Your task to perform on an android device: check android version Image 0: 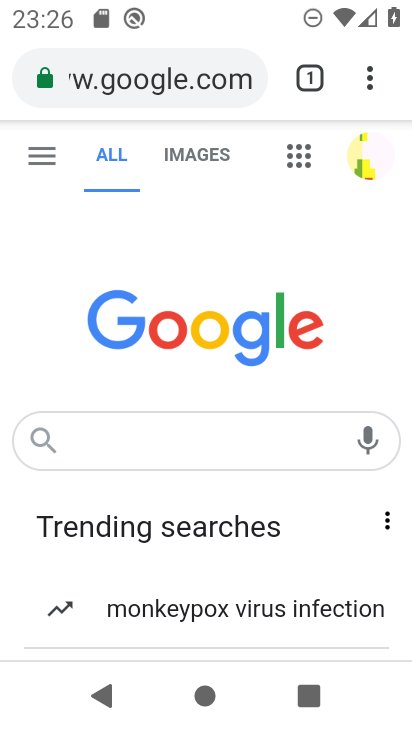
Step 0: press home button
Your task to perform on an android device: check android version Image 1: 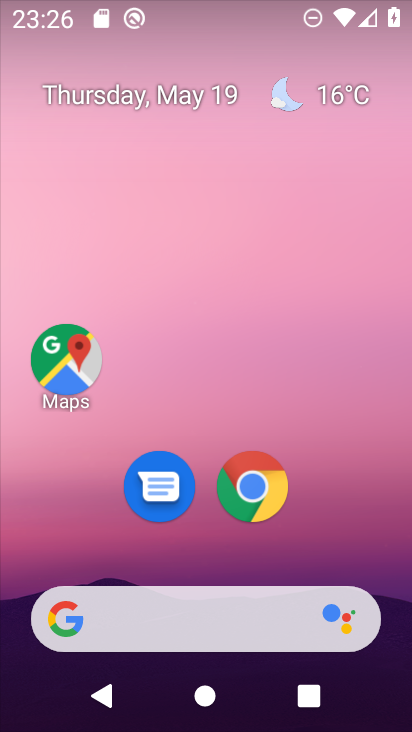
Step 1: drag from (361, 533) to (301, 73)
Your task to perform on an android device: check android version Image 2: 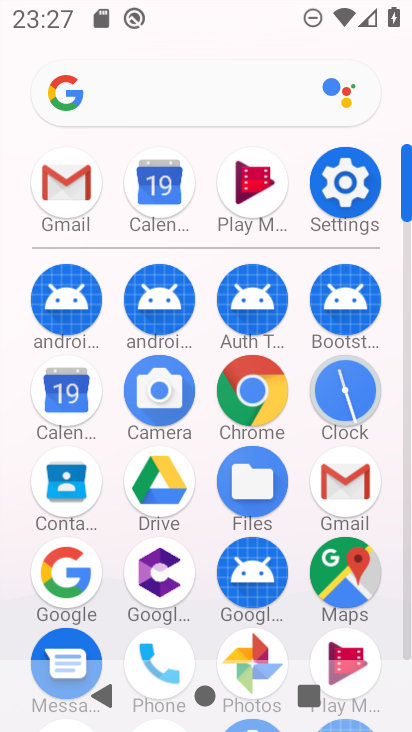
Step 2: click (324, 201)
Your task to perform on an android device: check android version Image 3: 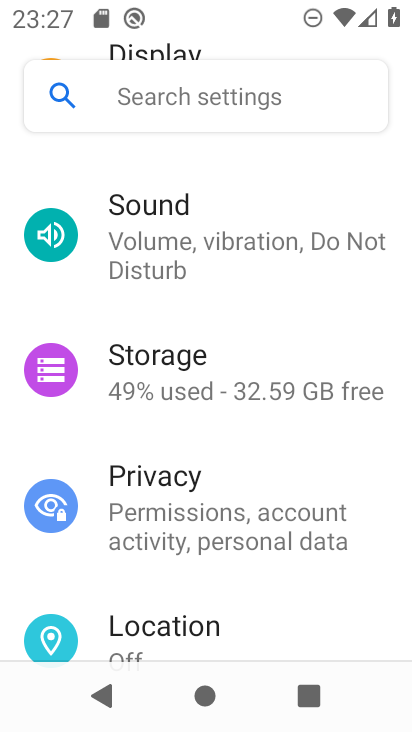
Step 3: drag from (282, 488) to (213, 5)
Your task to perform on an android device: check android version Image 4: 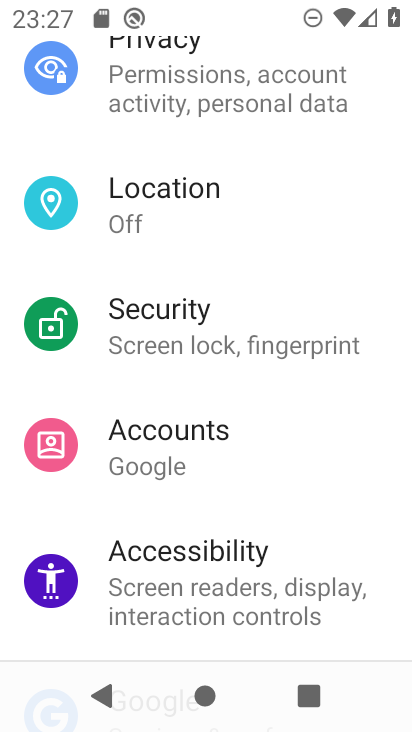
Step 4: drag from (198, 443) to (168, 213)
Your task to perform on an android device: check android version Image 5: 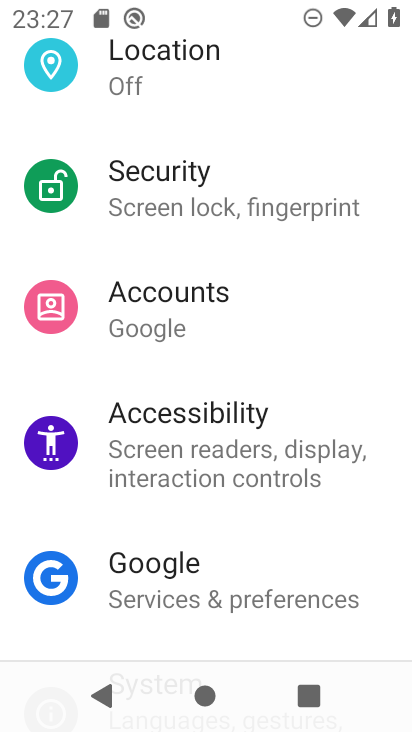
Step 5: drag from (216, 529) to (131, 306)
Your task to perform on an android device: check android version Image 6: 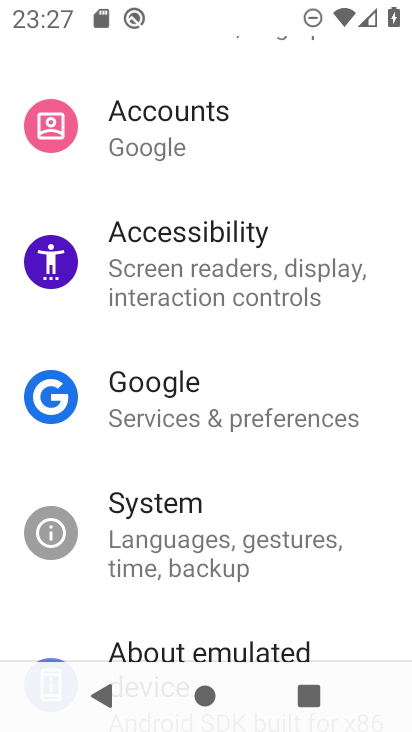
Step 6: click (306, 654)
Your task to perform on an android device: check android version Image 7: 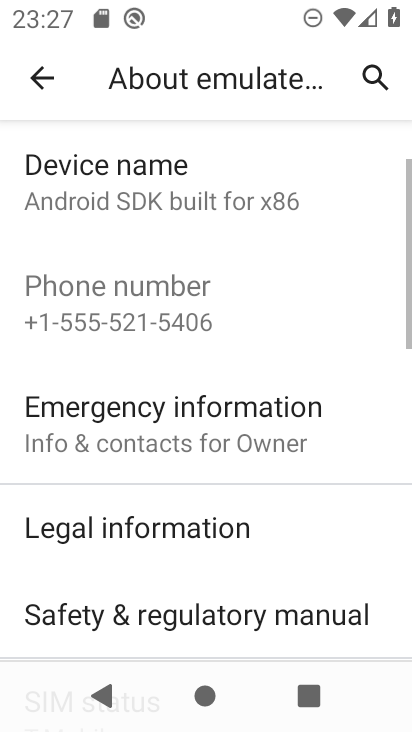
Step 7: drag from (289, 599) to (225, 320)
Your task to perform on an android device: check android version Image 8: 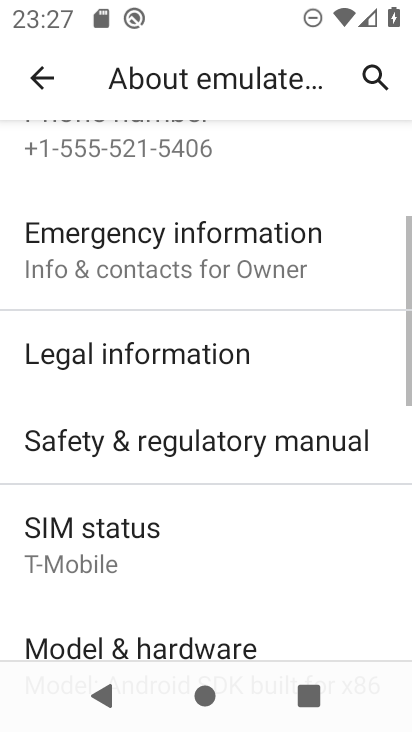
Step 8: drag from (279, 558) to (256, 438)
Your task to perform on an android device: check android version Image 9: 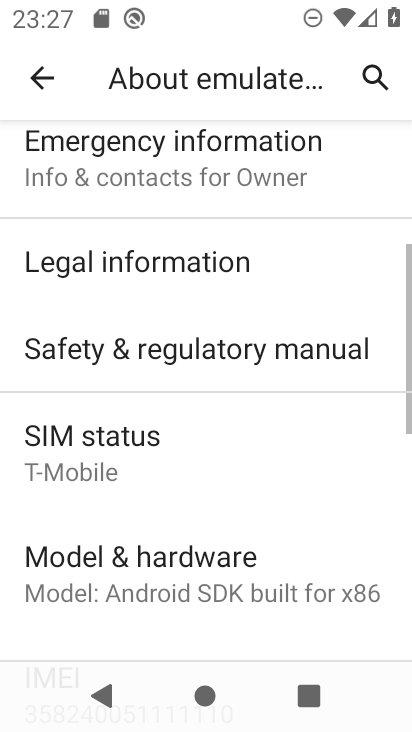
Step 9: drag from (256, 560) to (226, 267)
Your task to perform on an android device: check android version Image 10: 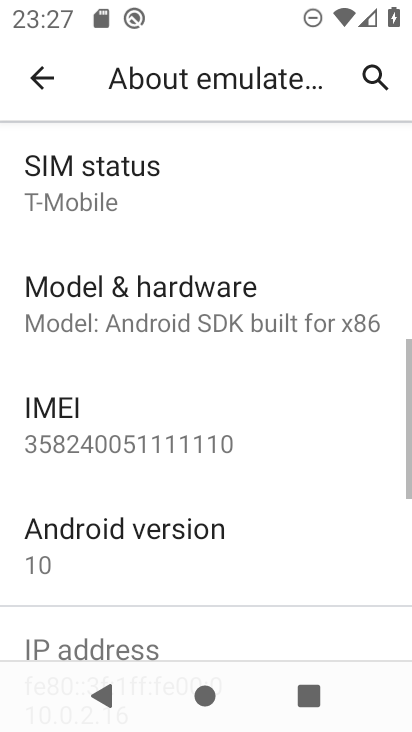
Step 10: click (223, 522)
Your task to perform on an android device: check android version Image 11: 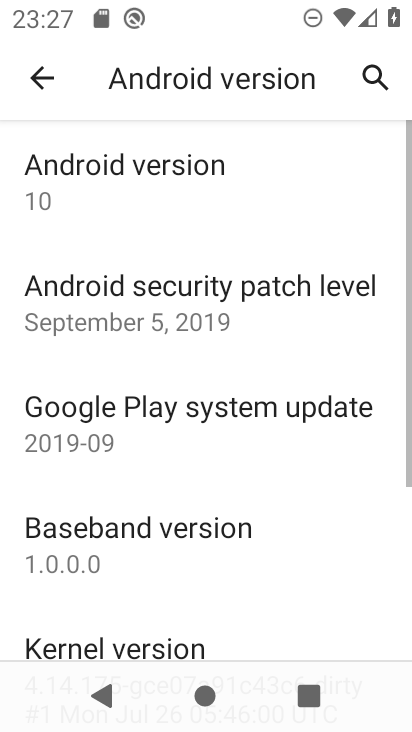
Step 11: task complete